Your task to perform on an android device: turn notification dots on Image 0: 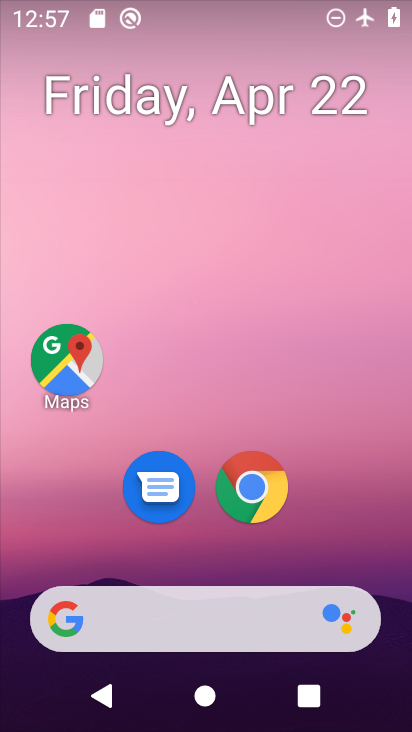
Step 0: drag from (325, 567) to (324, 208)
Your task to perform on an android device: turn notification dots on Image 1: 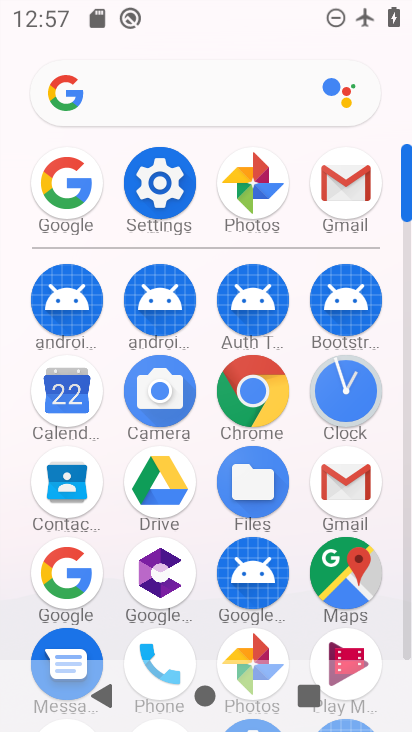
Step 1: click (170, 182)
Your task to perform on an android device: turn notification dots on Image 2: 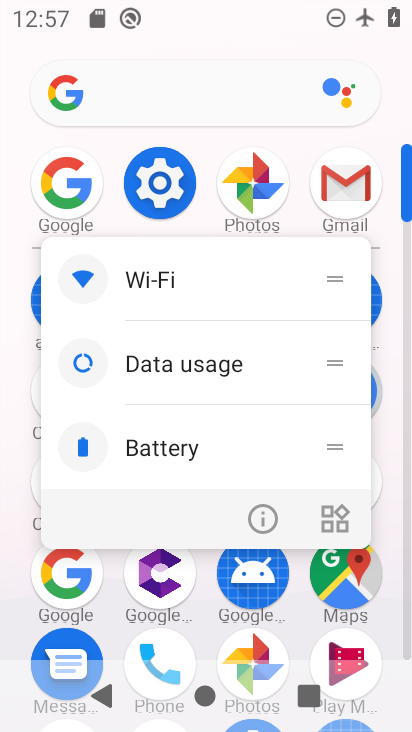
Step 2: click (170, 169)
Your task to perform on an android device: turn notification dots on Image 3: 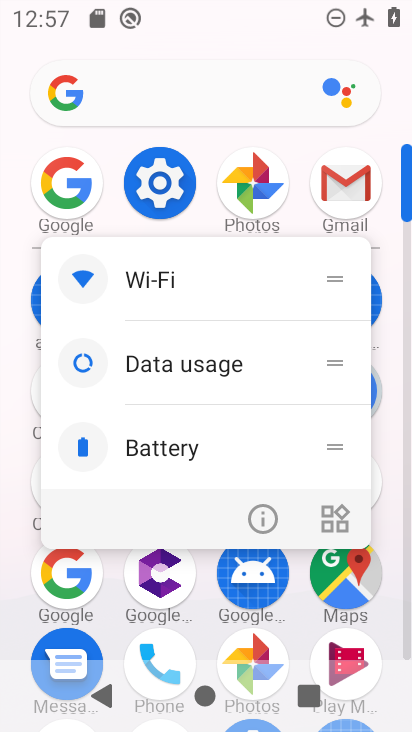
Step 3: click (160, 177)
Your task to perform on an android device: turn notification dots on Image 4: 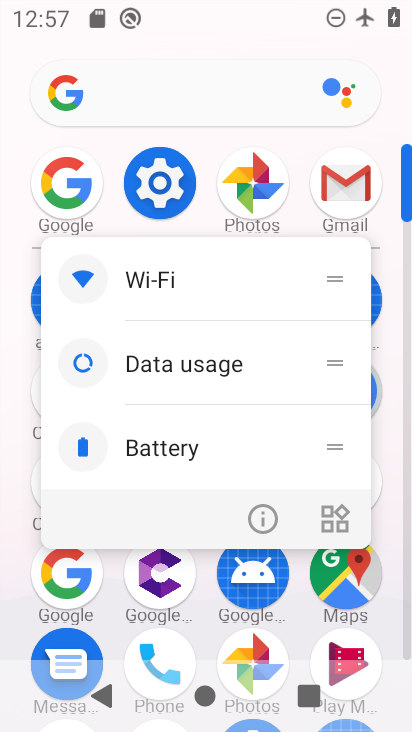
Step 4: click (168, 177)
Your task to perform on an android device: turn notification dots on Image 5: 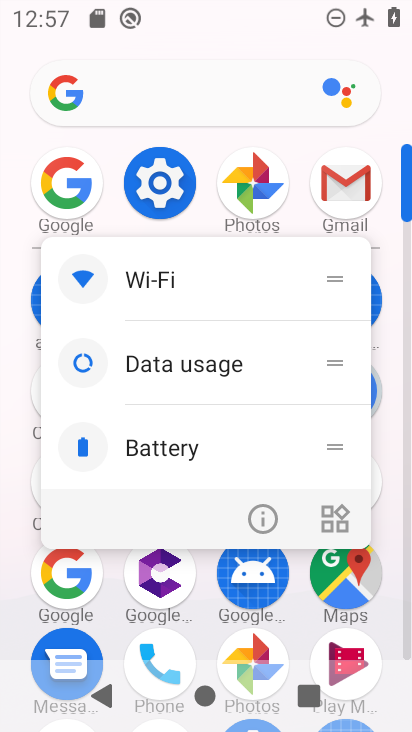
Step 5: click (172, 180)
Your task to perform on an android device: turn notification dots on Image 6: 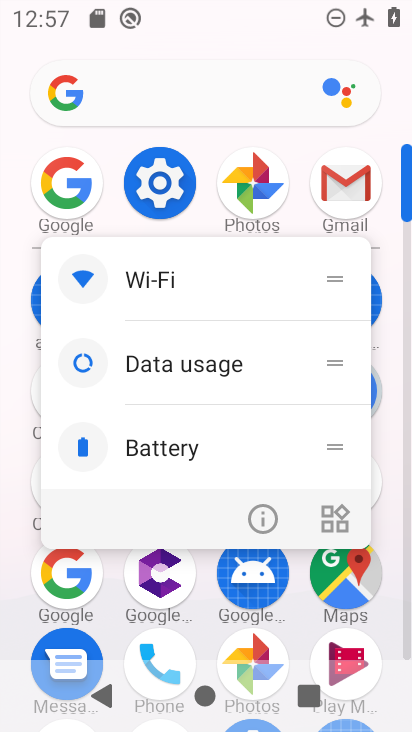
Step 6: drag from (289, 655) to (315, 194)
Your task to perform on an android device: turn notification dots on Image 7: 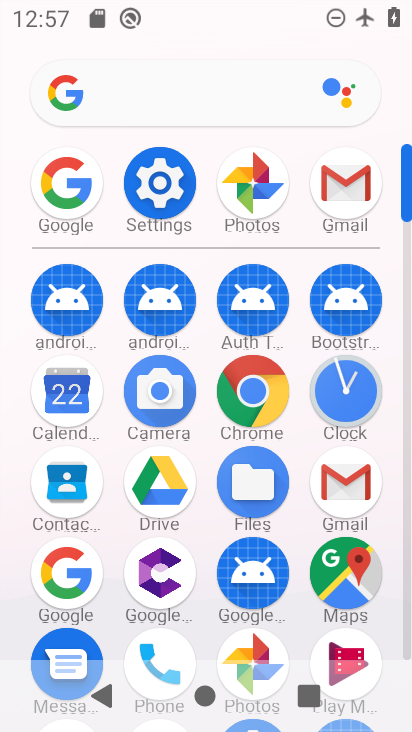
Step 7: click (144, 159)
Your task to perform on an android device: turn notification dots on Image 8: 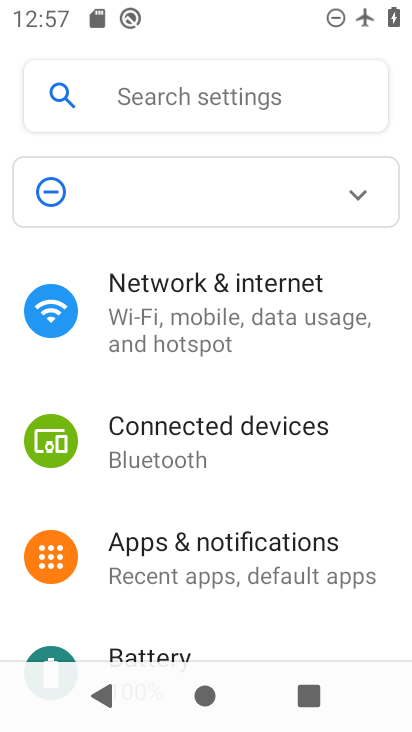
Step 8: click (241, 110)
Your task to perform on an android device: turn notification dots on Image 9: 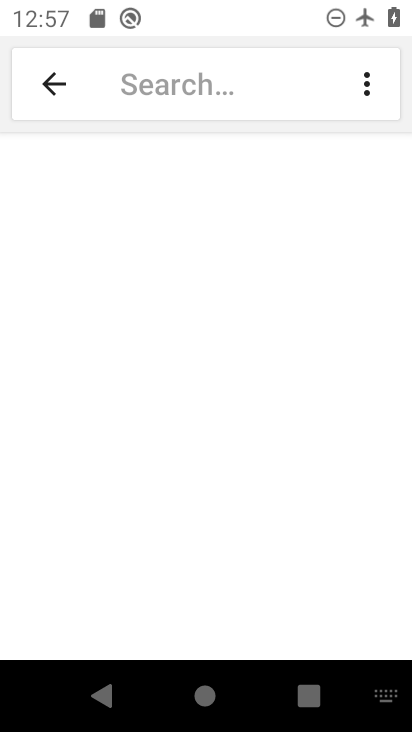
Step 9: type "notification dots "
Your task to perform on an android device: turn notification dots on Image 10: 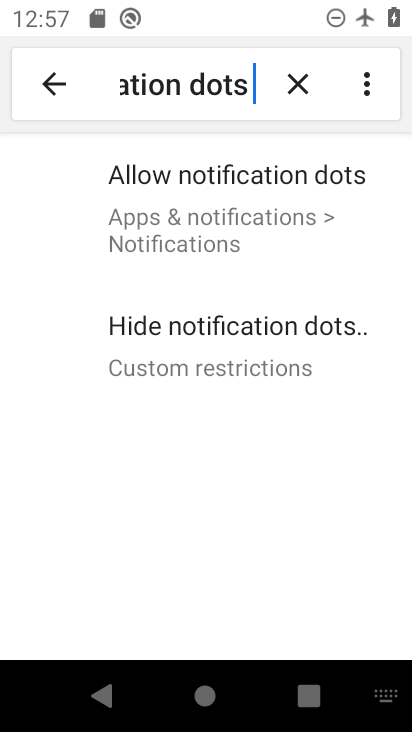
Step 10: click (201, 175)
Your task to perform on an android device: turn notification dots on Image 11: 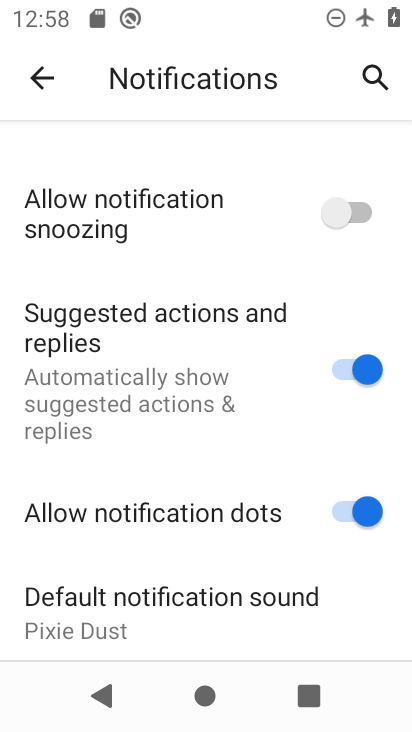
Step 11: task complete